Your task to perform on an android device: Open maps Image 0: 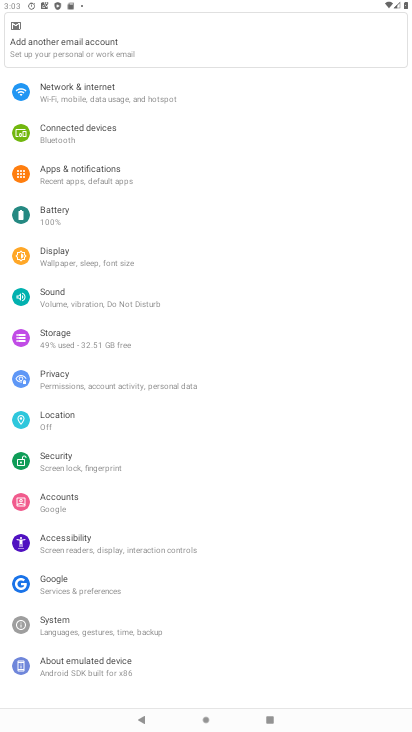
Step 0: press home button
Your task to perform on an android device: Open maps Image 1: 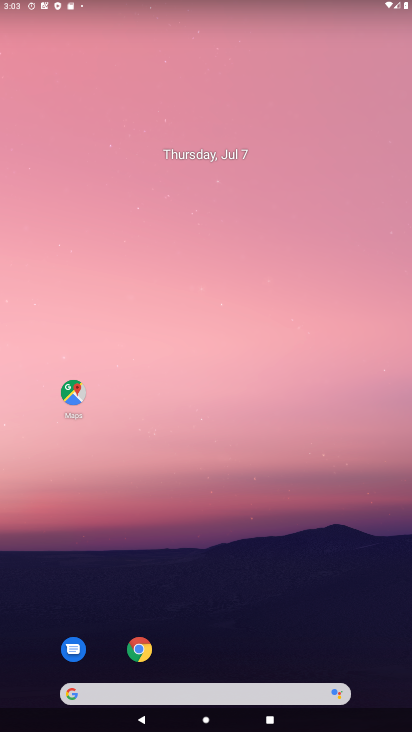
Step 1: drag from (270, 687) to (254, 122)
Your task to perform on an android device: Open maps Image 2: 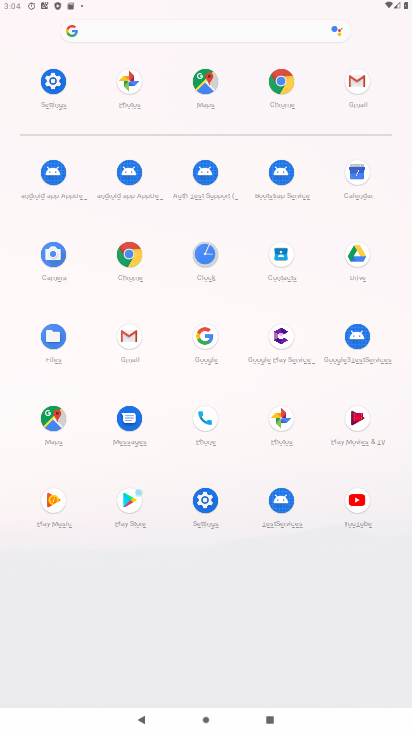
Step 2: click (54, 423)
Your task to perform on an android device: Open maps Image 3: 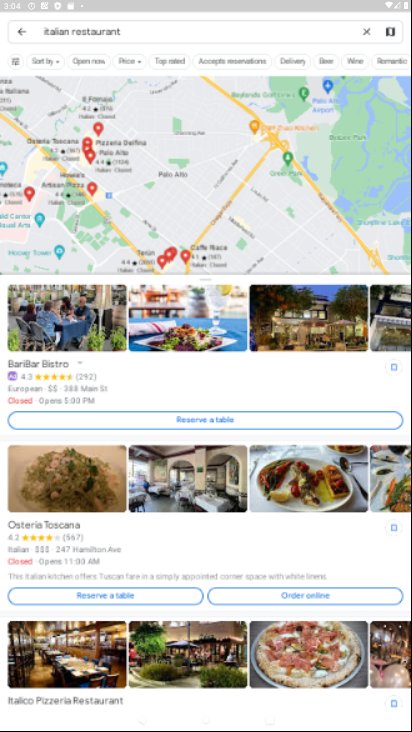
Step 3: task complete